Your task to perform on an android device: clear all cookies in the chrome app Image 0: 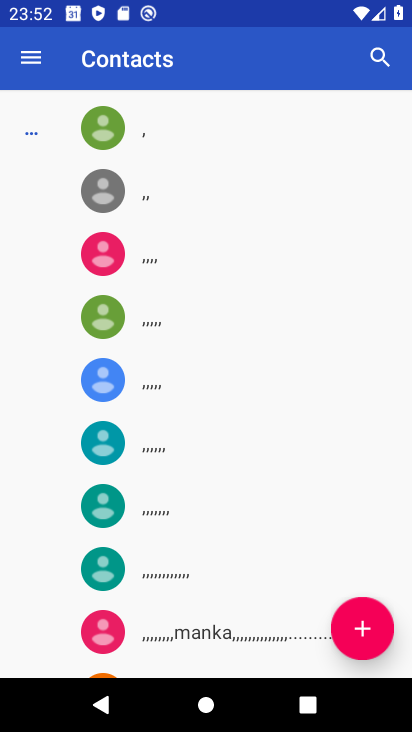
Step 0: press home button
Your task to perform on an android device: clear all cookies in the chrome app Image 1: 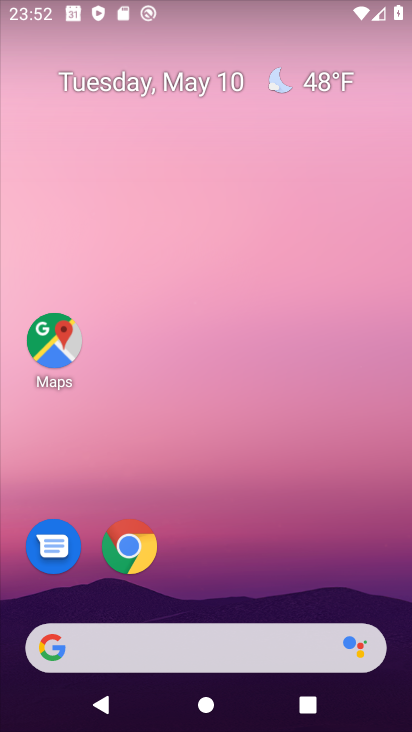
Step 1: click (145, 552)
Your task to perform on an android device: clear all cookies in the chrome app Image 2: 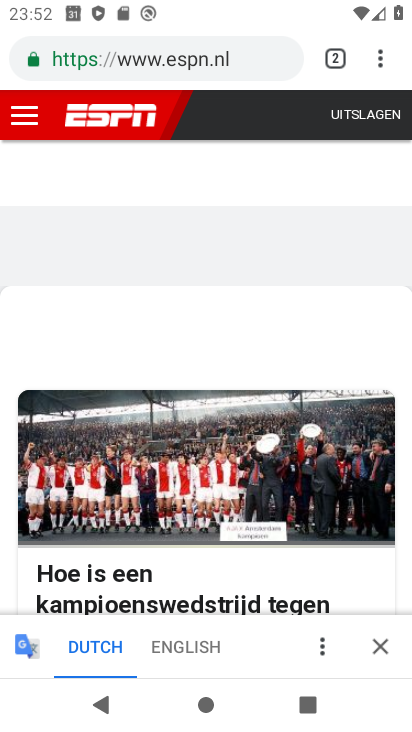
Step 2: drag from (380, 58) to (200, 208)
Your task to perform on an android device: clear all cookies in the chrome app Image 3: 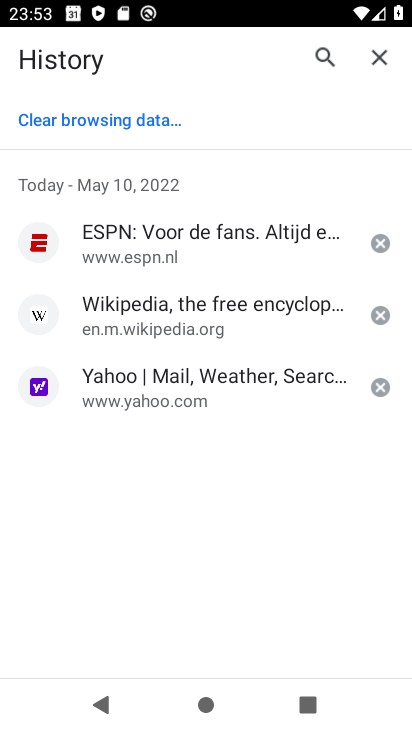
Step 3: click (114, 123)
Your task to perform on an android device: clear all cookies in the chrome app Image 4: 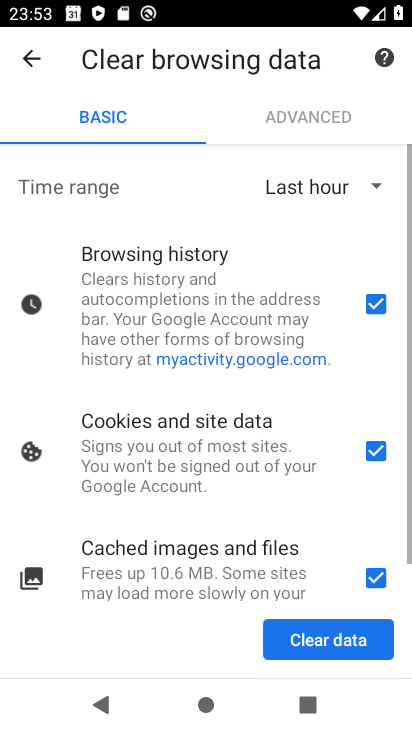
Step 4: click (324, 638)
Your task to perform on an android device: clear all cookies in the chrome app Image 5: 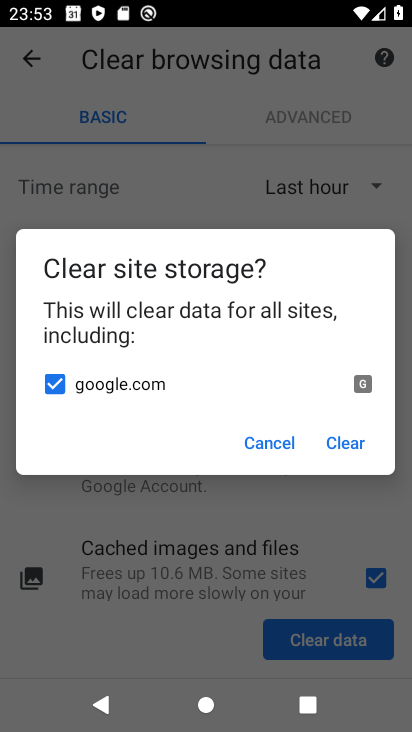
Step 5: click (339, 440)
Your task to perform on an android device: clear all cookies in the chrome app Image 6: 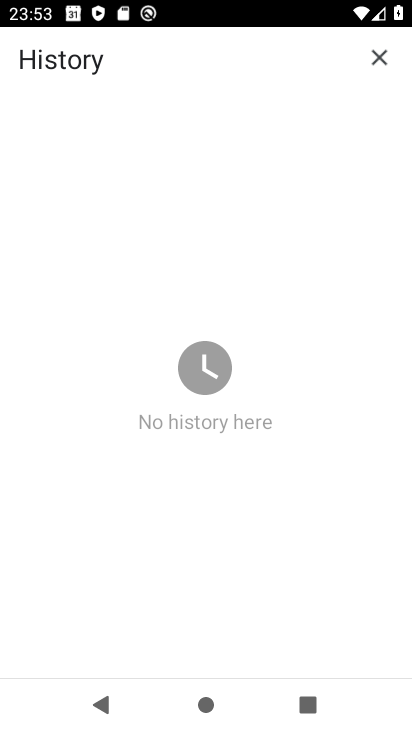
Step 6: task complete